Your task to perform on an android device: open chrome and create a bookmark for the current page Image 0: 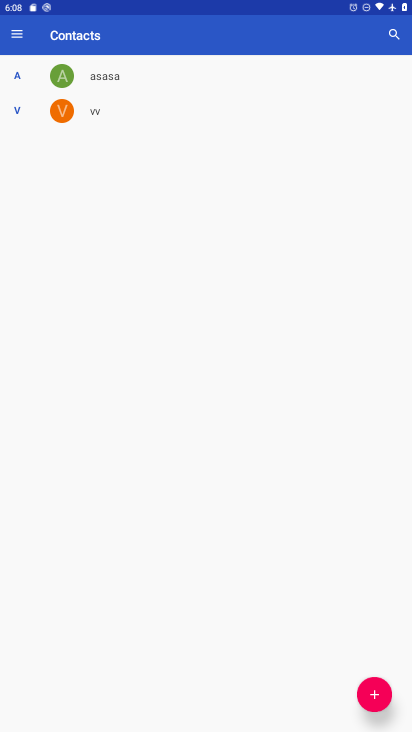
Step 0: press home button
Your task to perform on an android device: open chrome and create a bookmark for the current page Image 1: 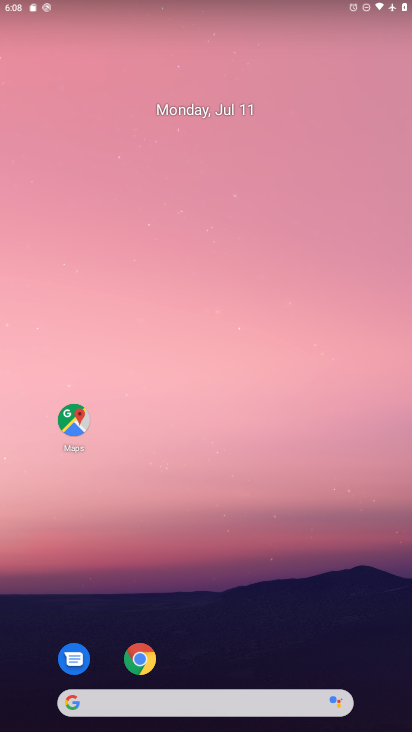
Step 1: click (136, 658)
Your task to perform on an android device: open chrome and create a bookmark for the current page Image 2: 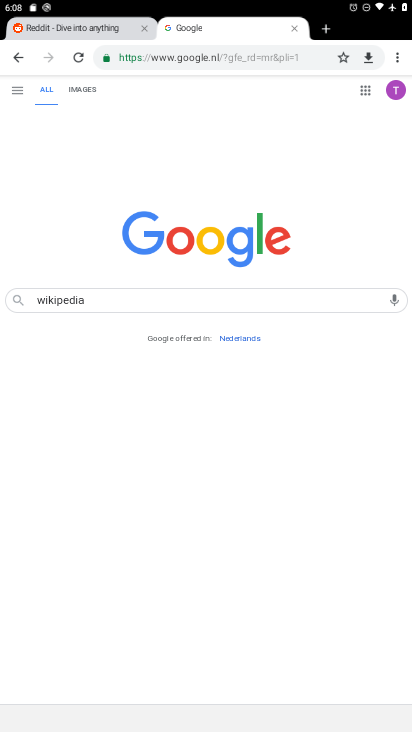
Step 2: click (342, 61)
Your task to perform on an android device: open chrome and create a bookmark for the current page Image 3: 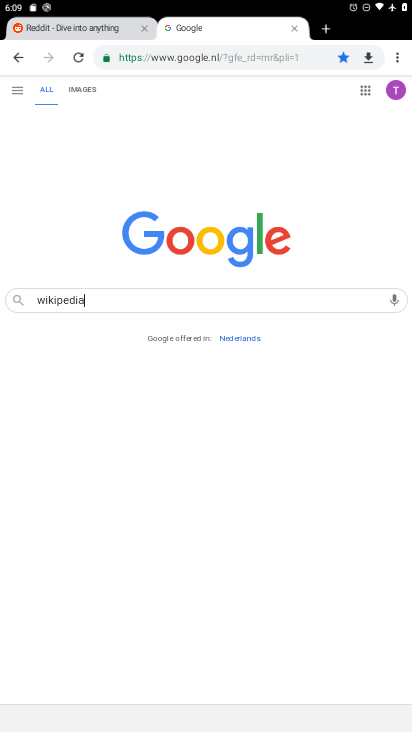
Step 3: task complete